Your task to perform on an android device: Open Yahoo.com Image 0: 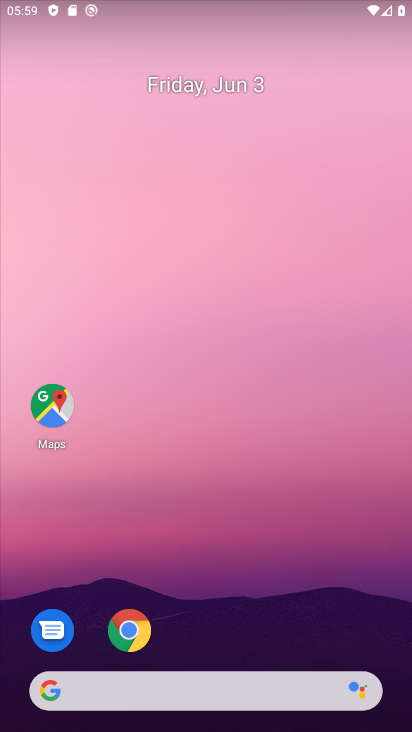
Step 0: click (128, 648)
Your task to perform on an android device: Open Yahoo.com Image 1: 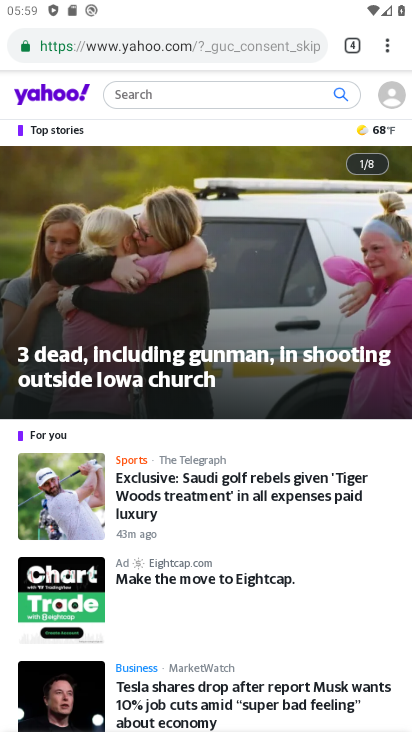
Step 1: task complete